Your task to perform on an android device: Show me popular videos on Youtube Image 0: 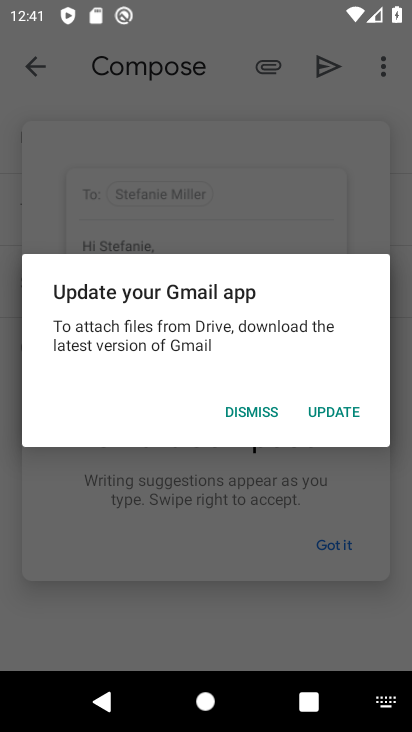
Step 0: press home button
Your task to perform on an android device: Show me popular videos on Youtube Image 1: 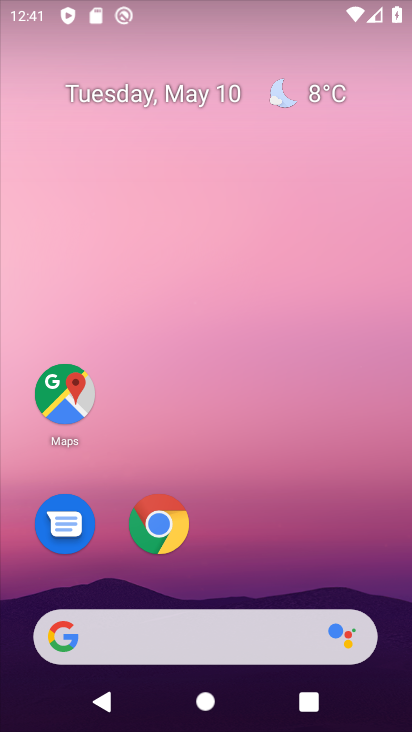
Step 1: drag from (315, 508) to (354, 61)
Your task to perform on an android device: Show me popular videos on Youtube Image 2: 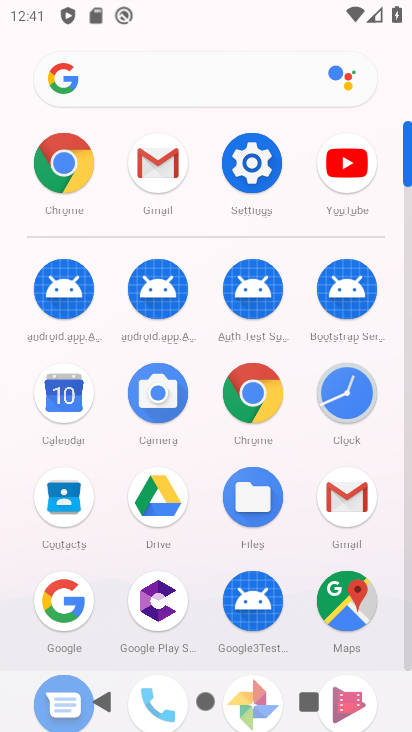
Step 2: drag from (287, 531) to (326, 152)
Your task to perform on an android device: Show me popular videos on Youtube Image 3: 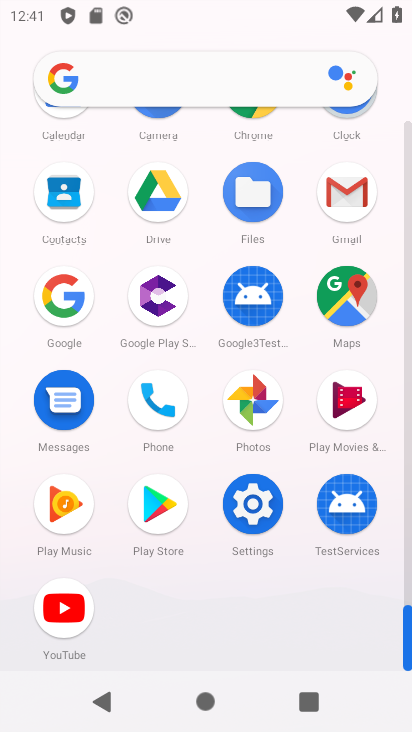
Step 3: click (71, 597)
Your task to perform on an android device: Show me popular videos on Youtube Image 4: 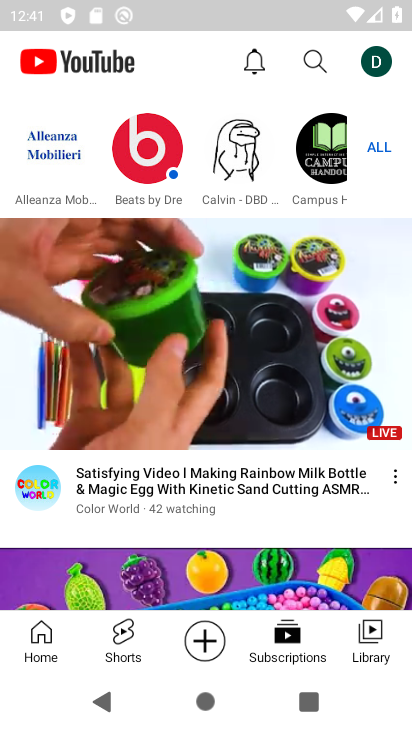
Step 4: click (39, 627)
Your task to perform on an android device: Show me popular videos on Youtube Image 5: 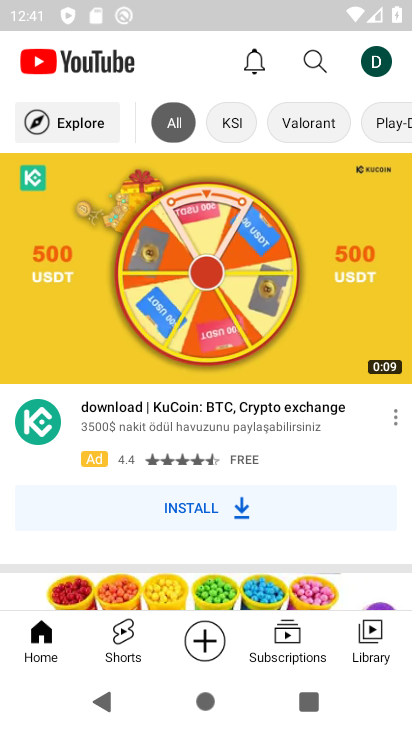
Step 5: click (176, 123)
Your task to perform on an android device: Show me popular videos on Youtube Image 6: 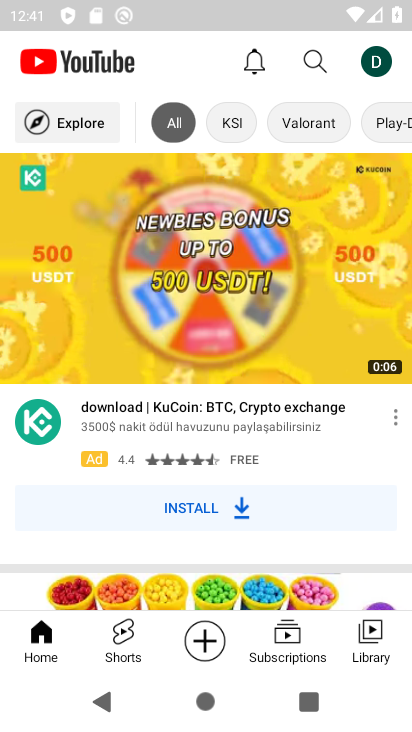
Step 6: drag from (336, 110) to (45, 156)
Your task to perform on an android device: Show me popular videos on Youtube Image 7: 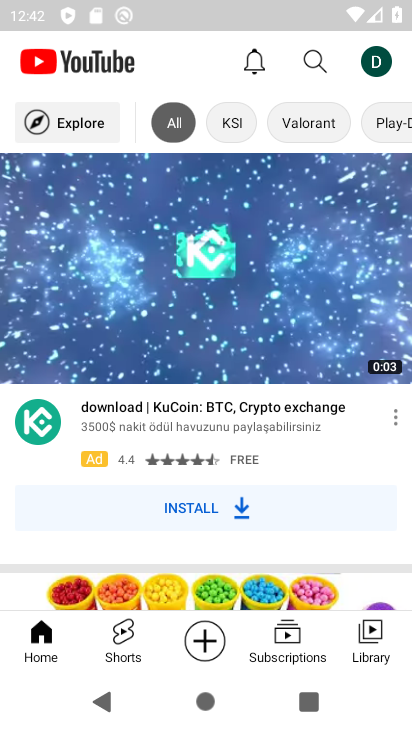
Step 7: drag from (398, 113) to (287, 128)
Your task to perform on an android device: Show me popular videos on Youtube Image 8: 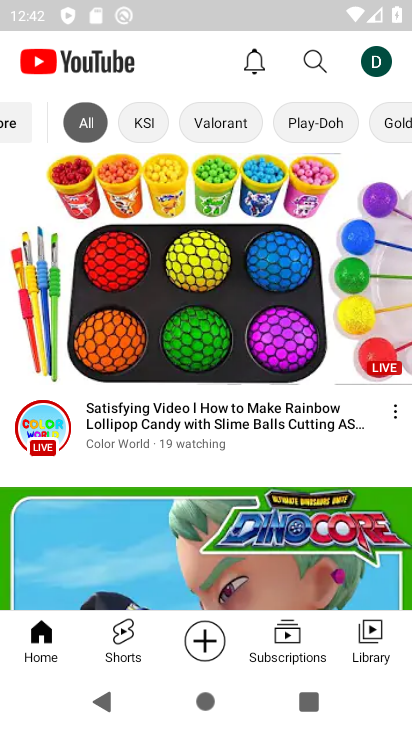
Step 8: drag from (397, 116) to (136, 138)
Your task to perform on an android device: Show me popular videos on Youtube Image 9: 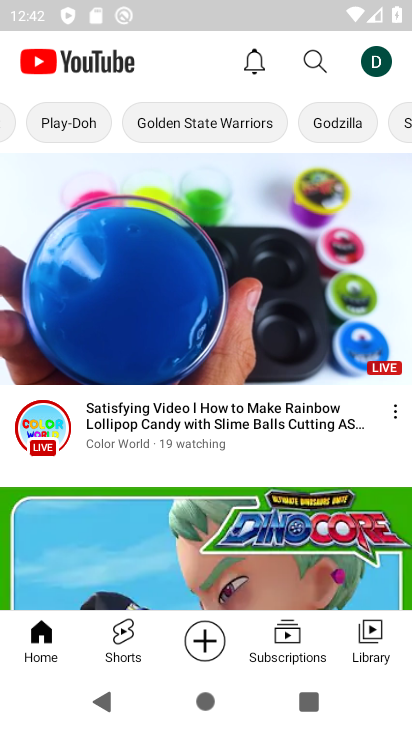
Step 9: drag from (202, 523) to (242, 551)
Your task to perform on an android device: Show me popular videos on Youtube Image 10: 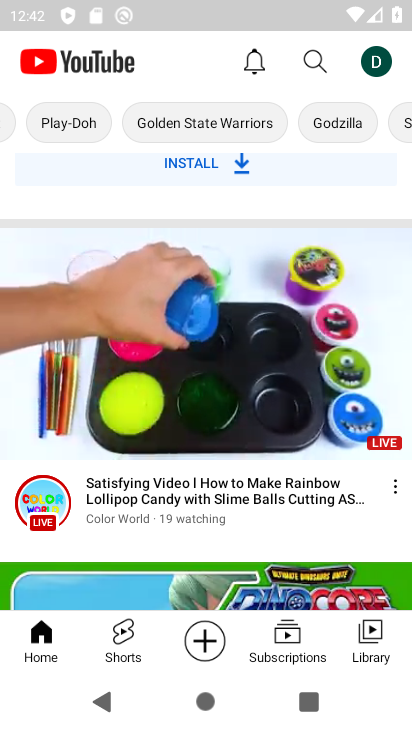
Step 10: click (316, 60)
Your task to perform on an android device: Show me popular videos on Youtube Image 11: 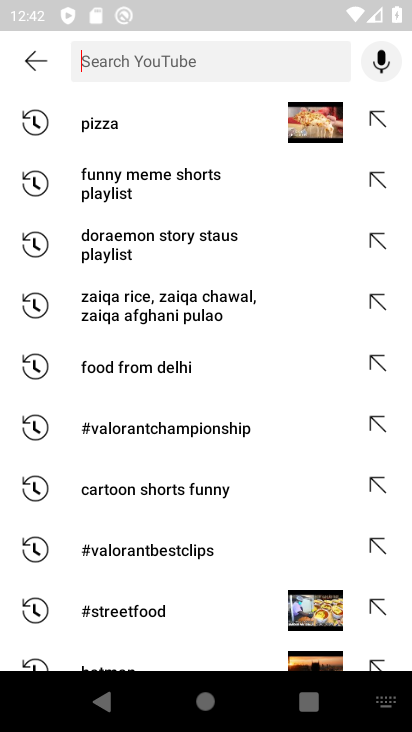
Step 11: drag from (196, 615) to (203, 66)
Your task to perform on an android device: Show me popular videos on Youtube Image 12: 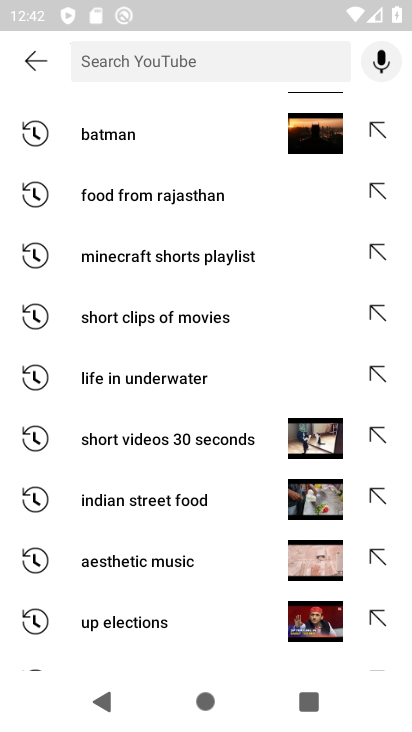
Step 12: type "popular video"
Your task to perform on an android device: Show me popular videos on Youtube Image 13: 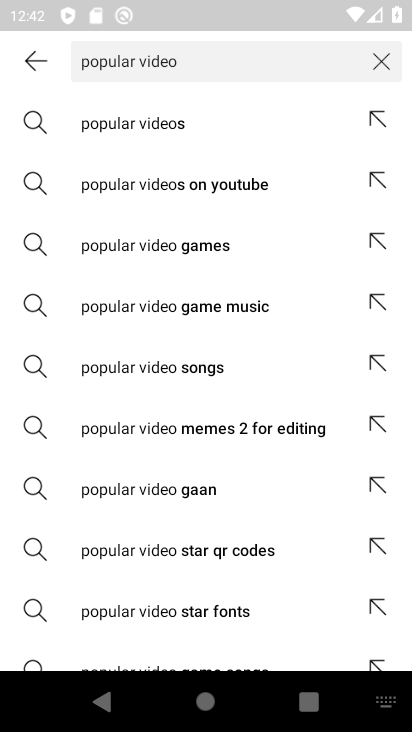
Step 13: click (234, 186)
Your task to perform on an android device: Show me popular videos on Youtube Image 14: 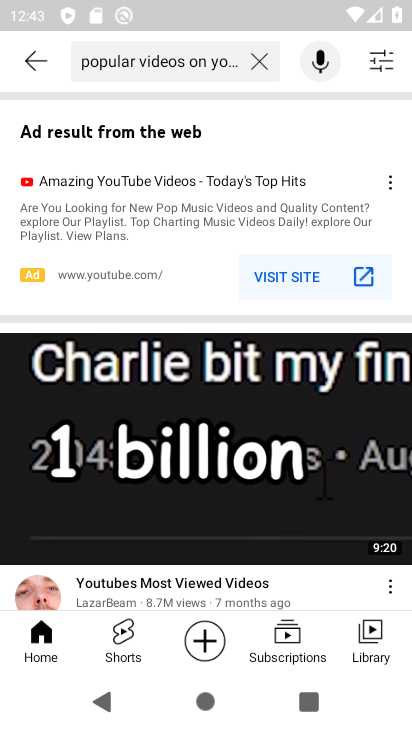
Step 14: task complete